Your task to perform on an android device: toggle priority inbox in the gmail app Image 0: 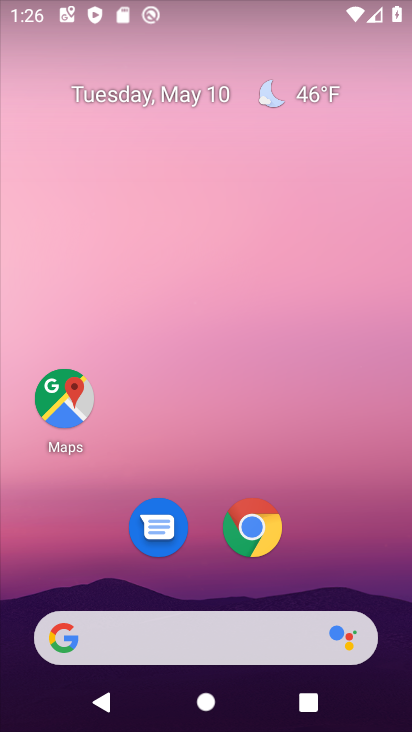
Step 0: drag from (346, 583) to (344, 3)
Your task to perform on an android device: toggle priority inbox in the gmail app Image 1: 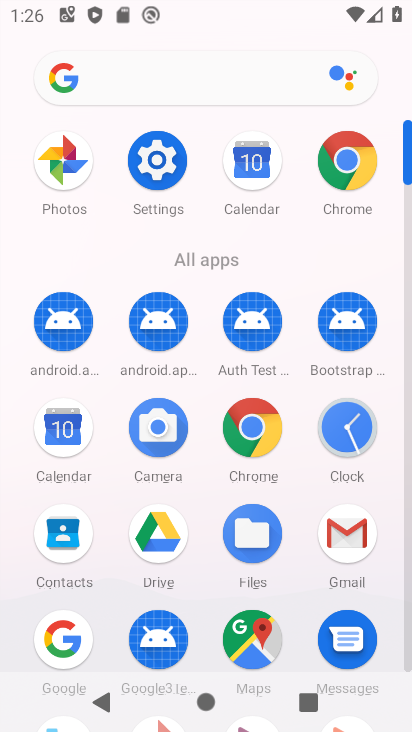
Step 1: click (339, 524)
Your task to perform on an android device: toggle priority inbox in the gmail app Image 2: 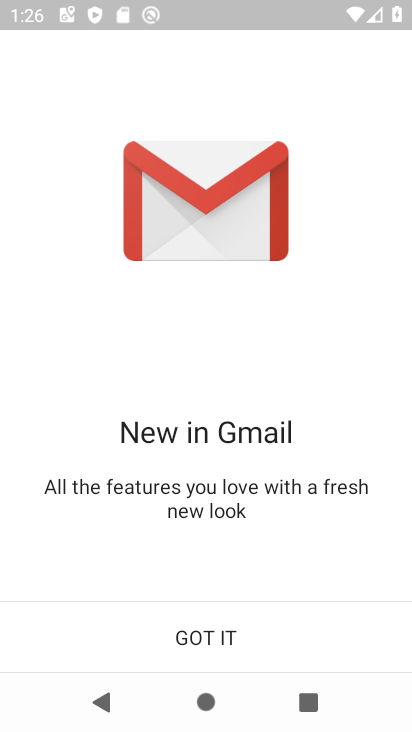
Step 2: click (202, 634)
Your task to perform on an android device: toggle priority inbox in the gmail app Image 3: 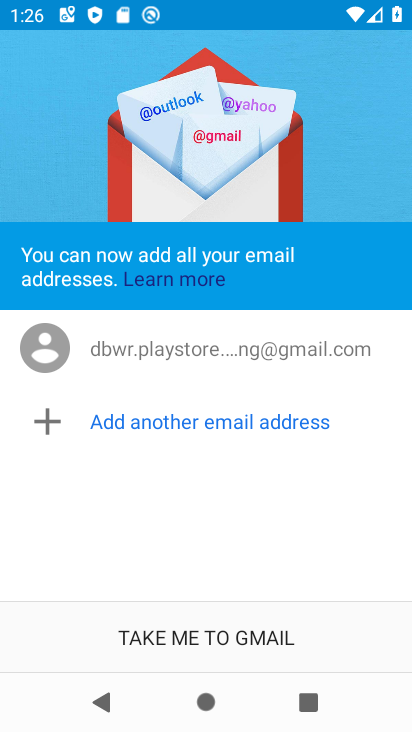
Step 3: click (202, 634)
Your task to perform on an android device: toggle priority inbox in the gmail app Image 4: 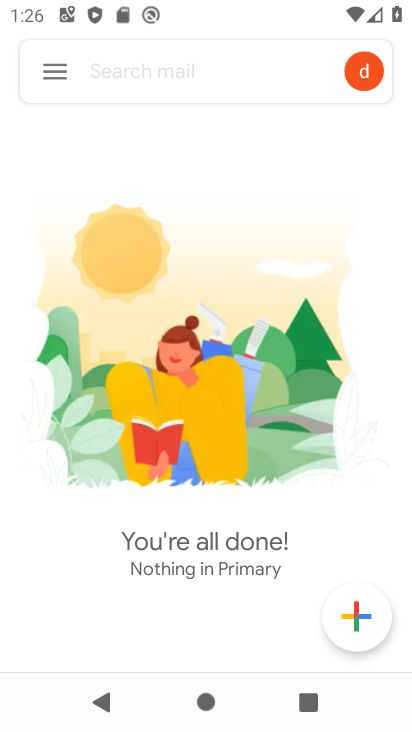
Step 4: click (46, 72)
Your task to perform on an android device: toggle priority inbox in the gmail app Image 5: 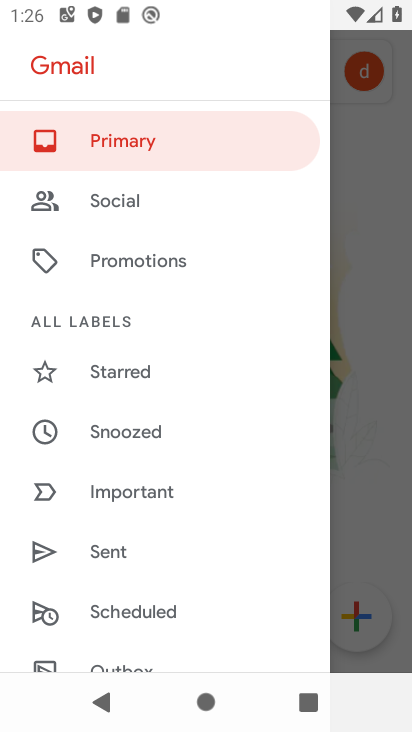
Step 5: drag from (189, 556) to (184, 180)
Your task to perform on an android device: toggle priority inbox in the gmail app Image 6: 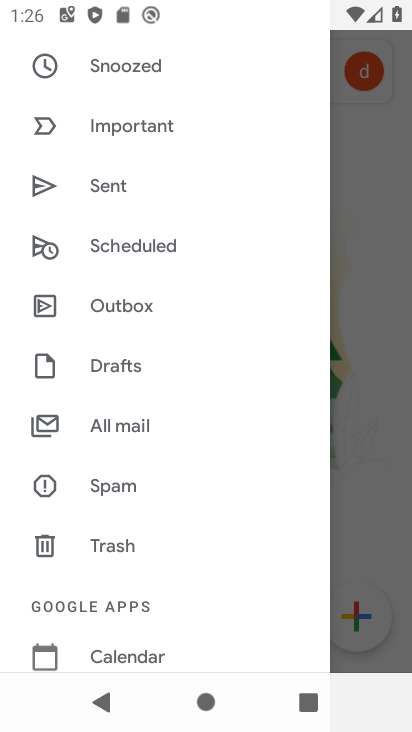
Step 6: drag from (174, 560) to (198, 134)
Your task to perform on an android device: toggle priority inbox in the gmail app Image 7: 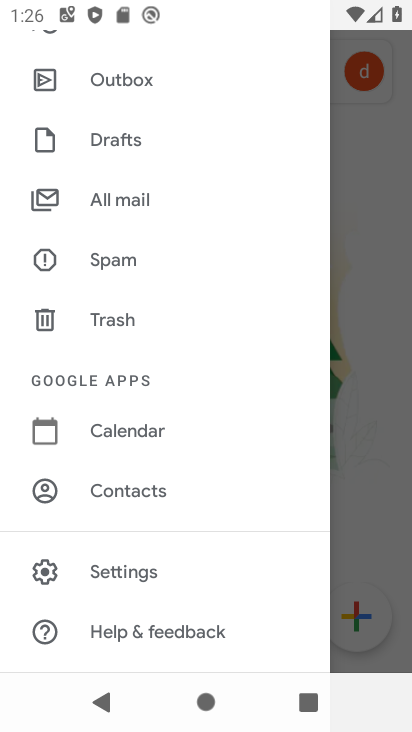
Step 7: click (133, 571)
Your task to perform on an android device: toggle priority inbox in the gmail app Image 8: 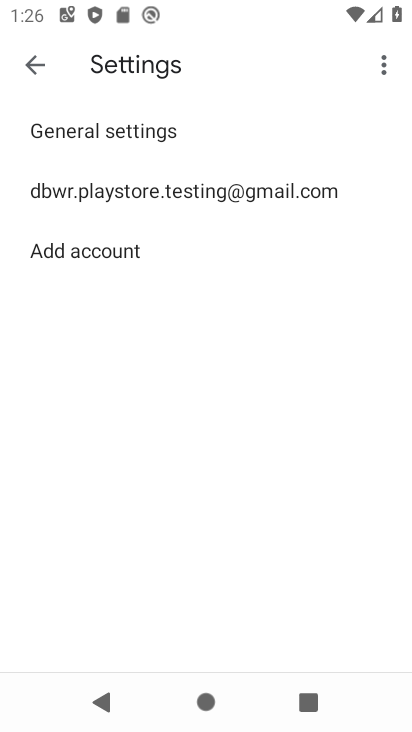
Step 8: click (110, 202)
Your task to perform on an android device: toggle priority inbox in the gmail app Image 9: 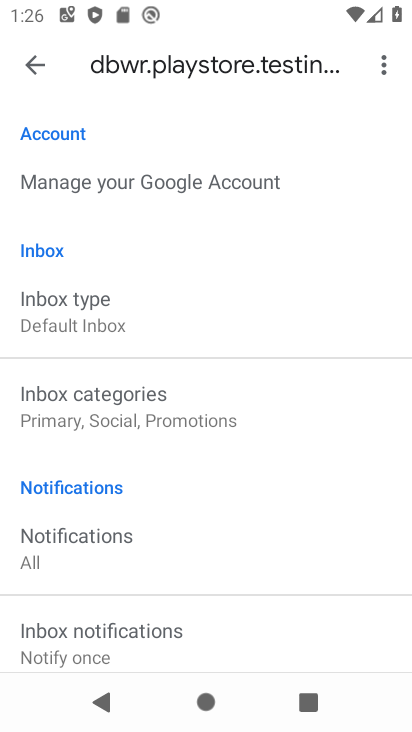
Step 9: click (90, 326)
Your task to perform on an android device: toggle priority inbox in the gmail app Image 10: 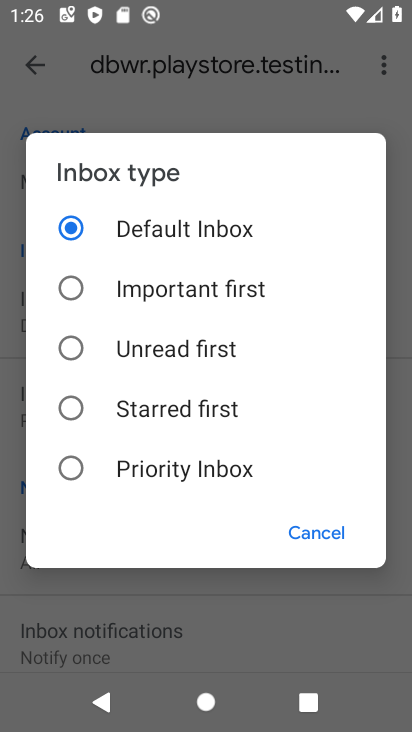
Step 10: click (83, 467)
Your task to perform on an android device: toggle priority inbox in the gmail app Image 11: 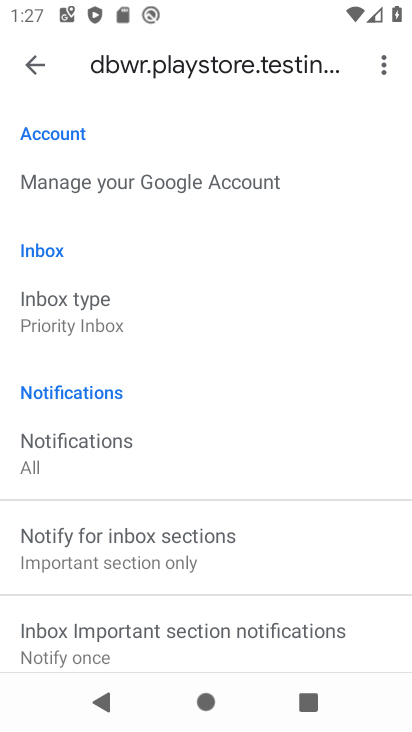
Step 11: task complete